Your task to perform on an android device: open wifi settings Image 0: 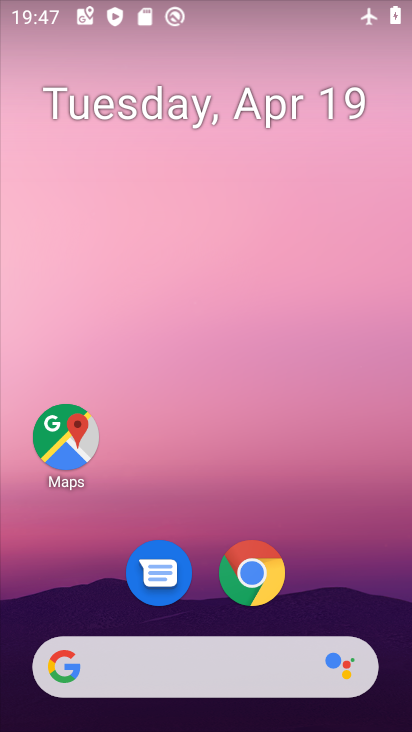
Step 0: click (309, 118)
Your task to perform on an android device: open wifi settings Image 1: 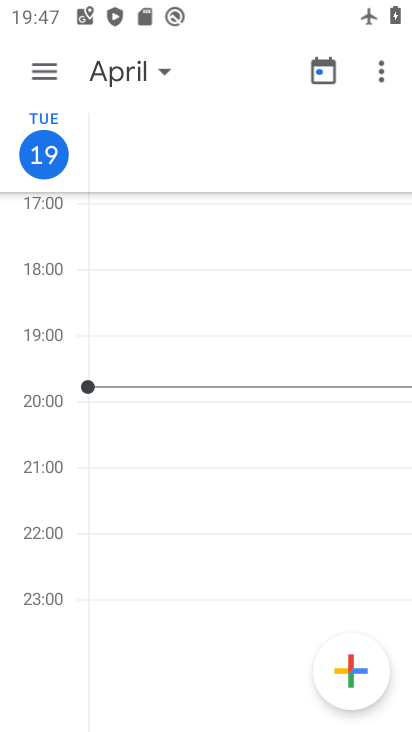
Step 1: press home button
Your task to perform on an android device: open wifi settings Image 2: 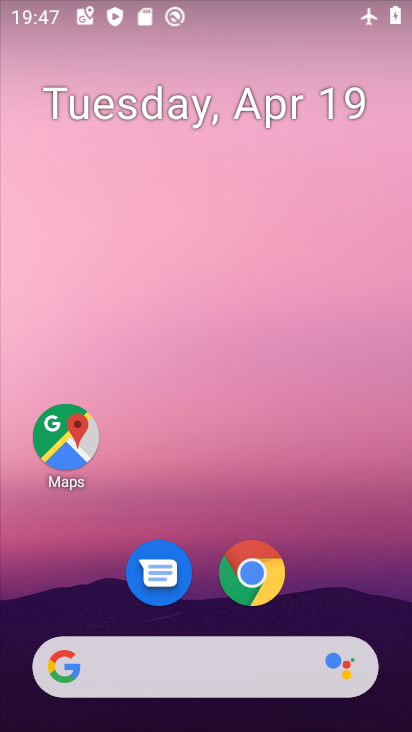
Step 2: drag from (361, 496) to (320, 134)
Your task to perform on an android device: open wifi settings Image 3: 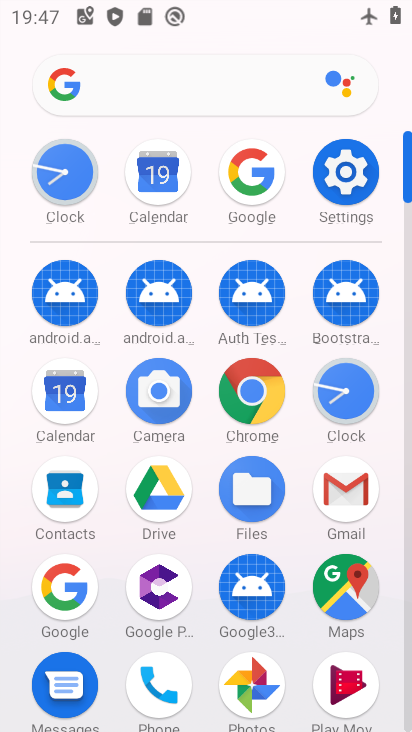
Step 3: click (341, 176)
Your task to perform on an android device: open wifi settings Image 4: 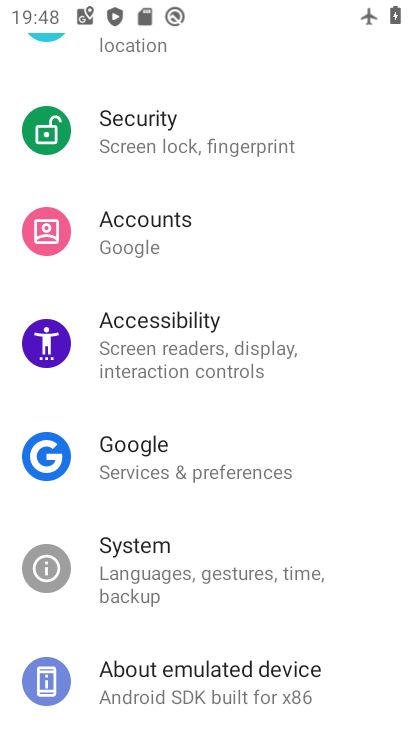
Step 4: drag from (365, 129) to (356, 521)
Your task to perform on an android device: open wifi settings Image 5: 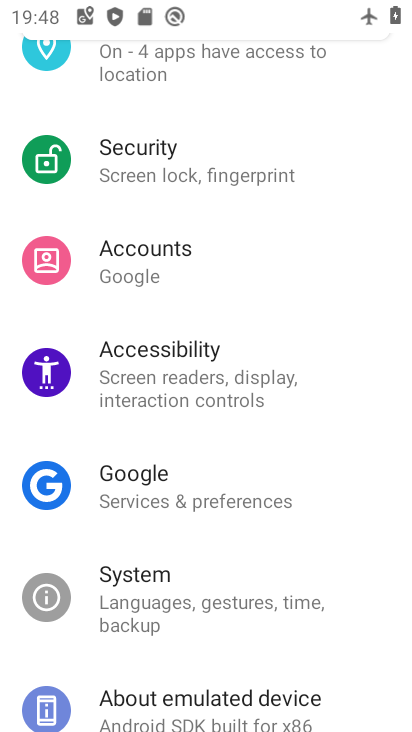
Step 5: click (345, 493)
Your task to perform on an android device: open wifi settings Image 6: 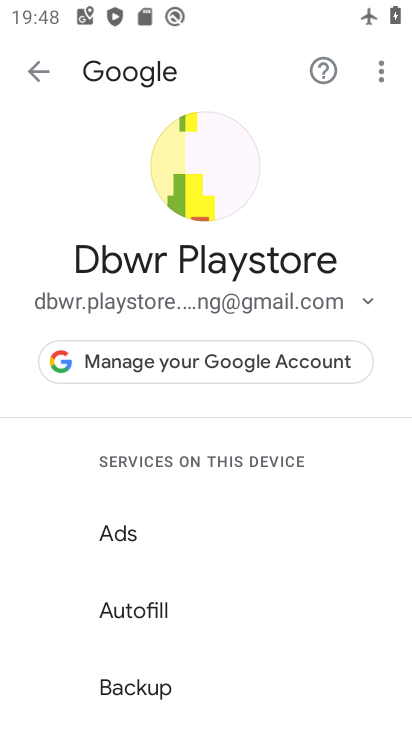
Step 6: press home button
Your task to perform on an android device: open wifi settings Image 7: 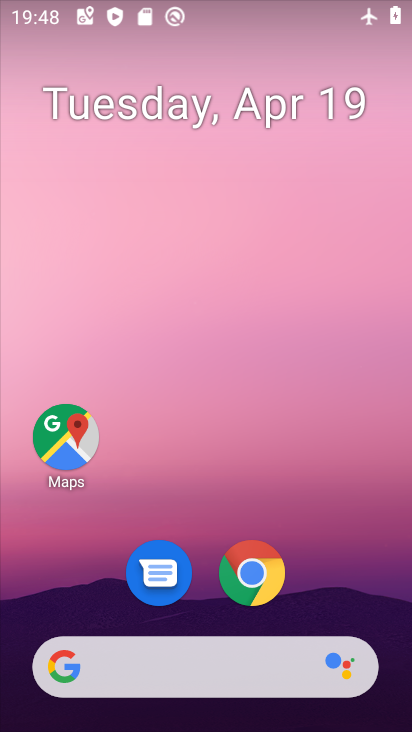
Step 7: drag from (353, 365) to (326, 146)
Your task to perform on an android device: open wifi settings Image 8: 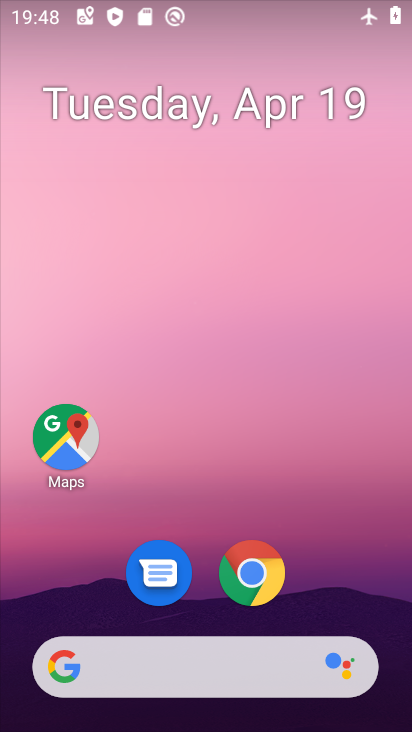
Step 8: drag from (333, 284) to (322, 190)
Your task to perform on an android device: open wifi settings Image 9: 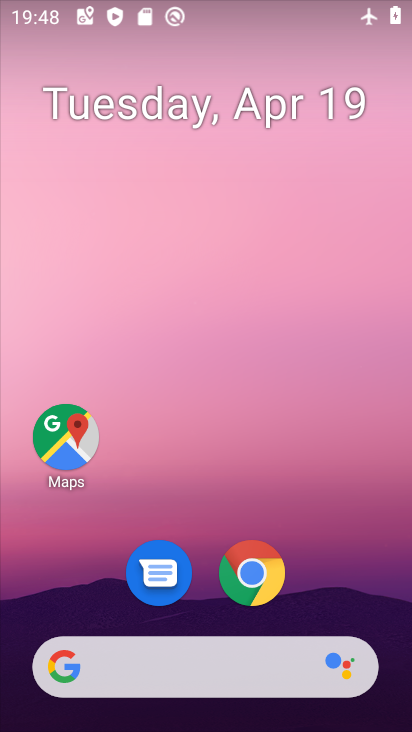
Step 9: drag from (383, 610) to (288, 57)
Your task to perform on an android device: open wifi settings Image 10: 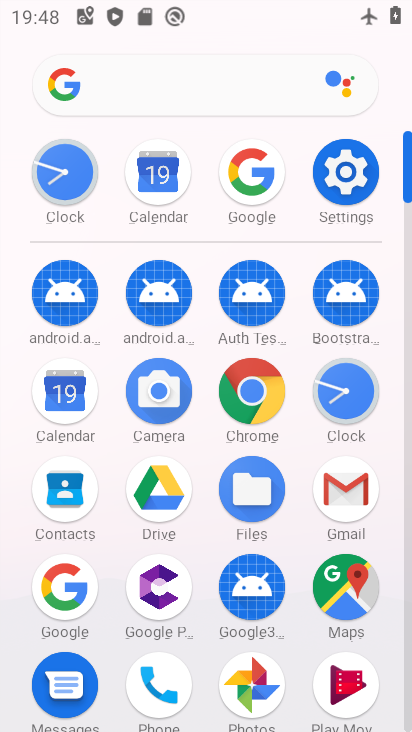
Step 10: click (335, 167)
Your task to perform on an android device: open wifi settings Image 11: 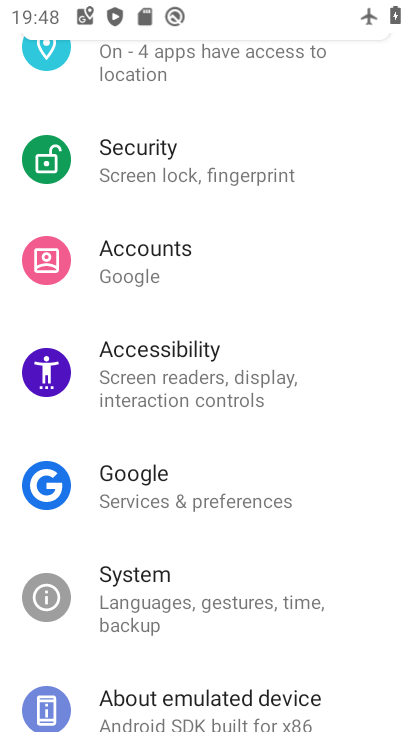
Step 11: drag from (370, 138) to (354, 581)
Your task to perform on an android device: open wifi settings Image 12: 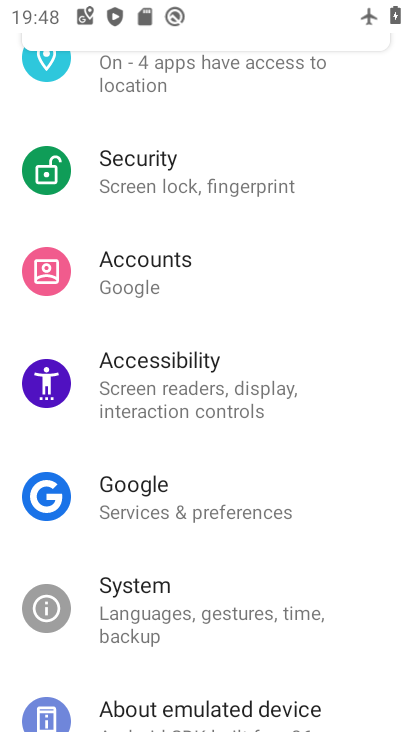
Step 12: drag from (350, 101) to (370, 608)
Your task to perform on an android device: open wifi settings Image 13: 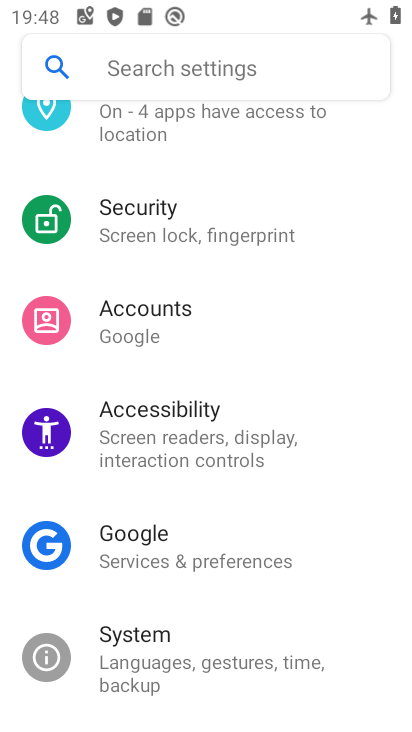
Step 13: drag from (362, 476) to (355, 658)
Your task to perform on an android device: open wifi settings Image 14: 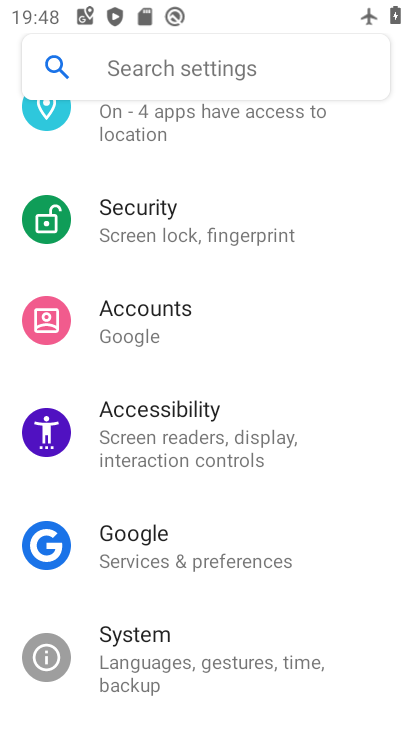
Step 14: drag from (347, 148) to (372, 594)
Your task to perform on an android device: open wifi settings Image 15: 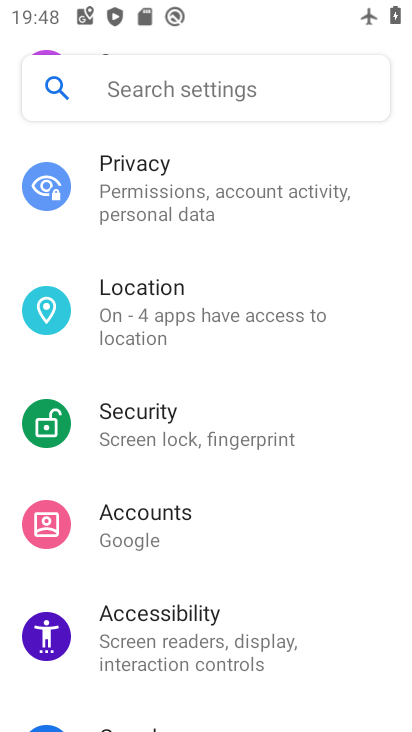
Step 15: drag from (347, 221) to (343, 560)
Your task to perform on an android device: open wifi settings Image 16: 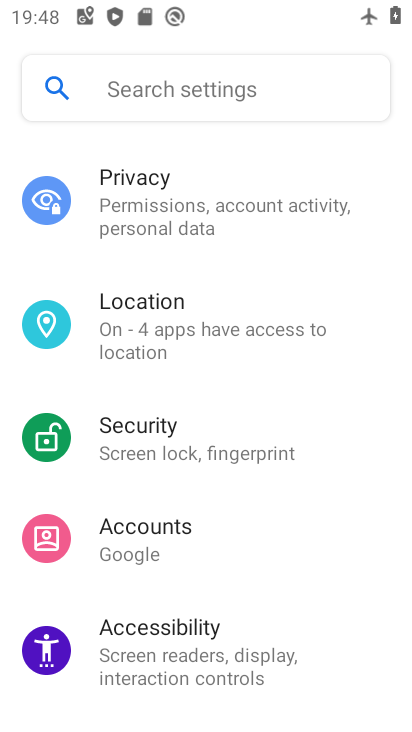
Step 16: drag from (396, 411) to (400, 533)
Your task to perform on an android device: open wifi settings Image 17: 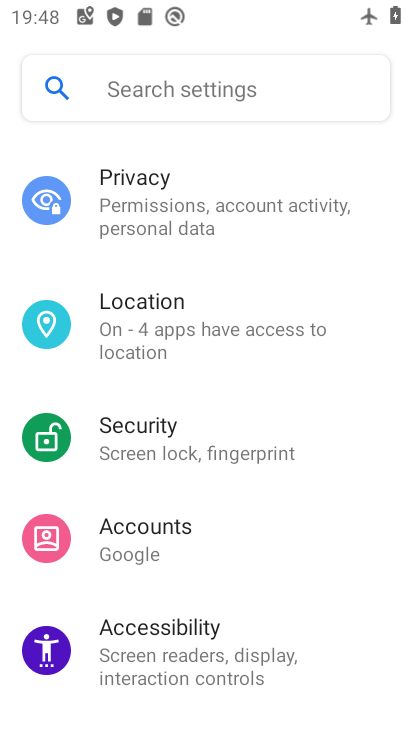
Step 17: drag from (358, 162) to (333, 611)
Your task to perform on an android device: open wifi settings Image 18: 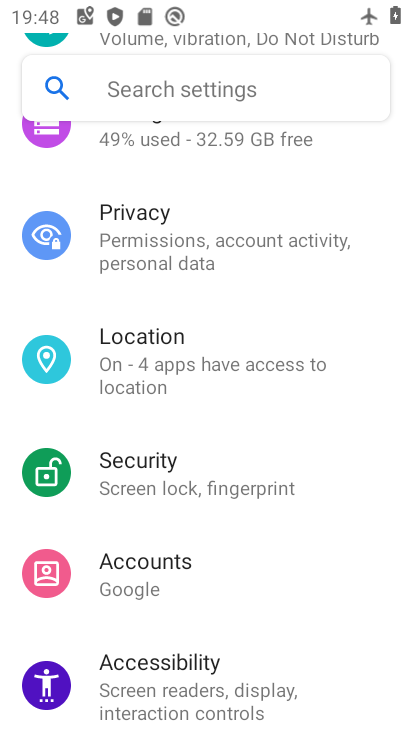
Step 18: drag from (362, 180) to (362, 724)
Your task to perform on an android device: open wifi settings Image 19: 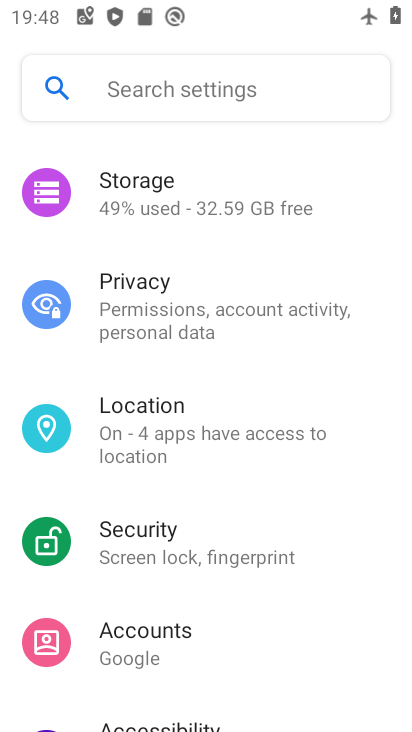
Step 19: drag from (402, 153) to (385, 615)
Your task to perform on an android device: open wifi settings Image 20: 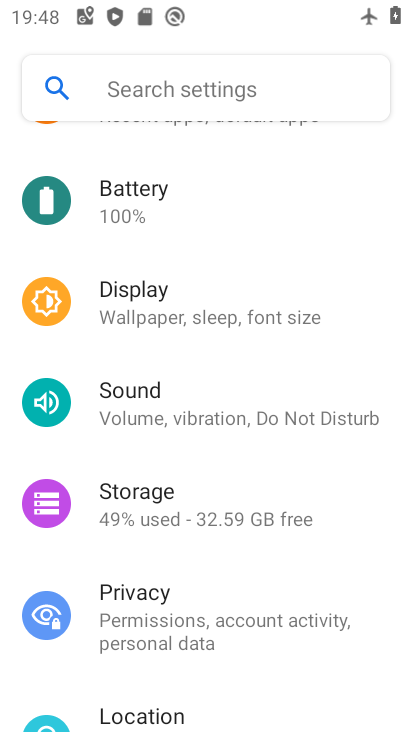
Step 20: drag from (370, 382) to (345, 650)
Your task to perform on an android device: open wifi settings Image 21: 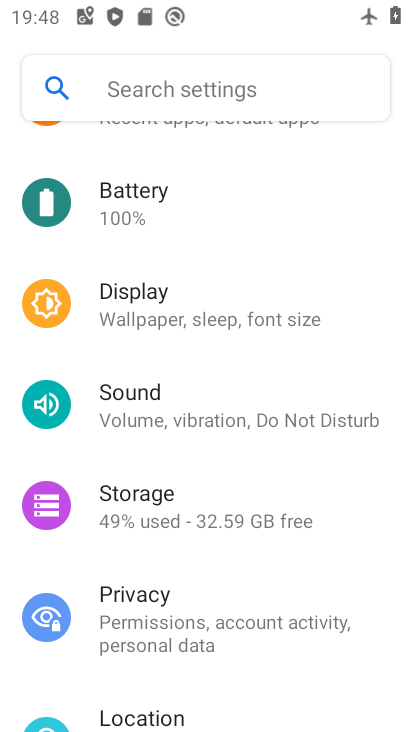
Step 21: drag from (411, 438) to (409, 720)
Your task to perform on an android device: open wifi settings Image 22: 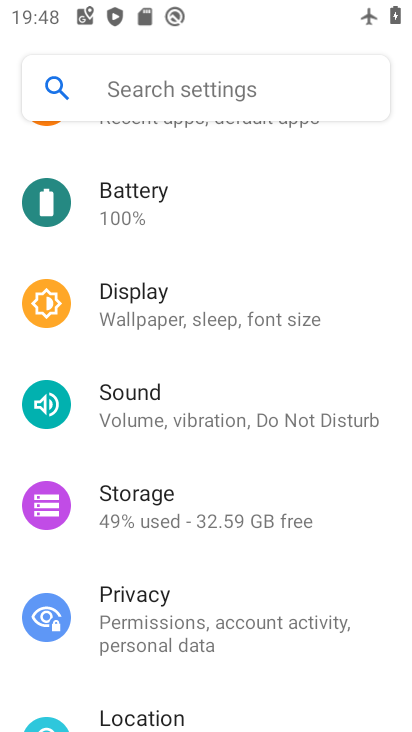
Step 22: drag from (386, 479) to (373, 649)
Your task to perform on an android device: open wifi settings Image 23: 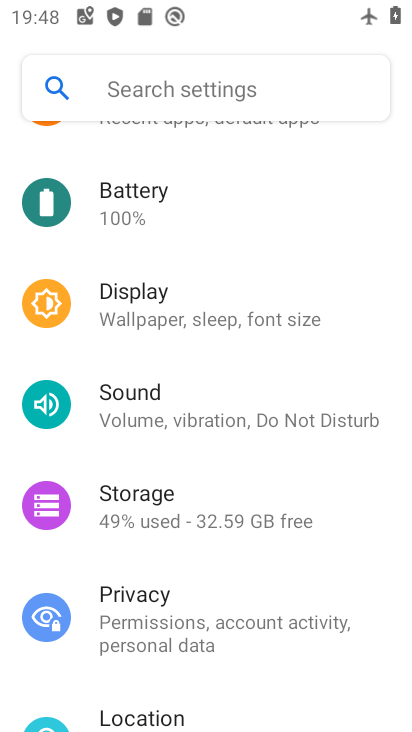
Step 23: drag from (388, 228) to (350, 638)
Your task to perform on an android device: open wifi settings Image 24: 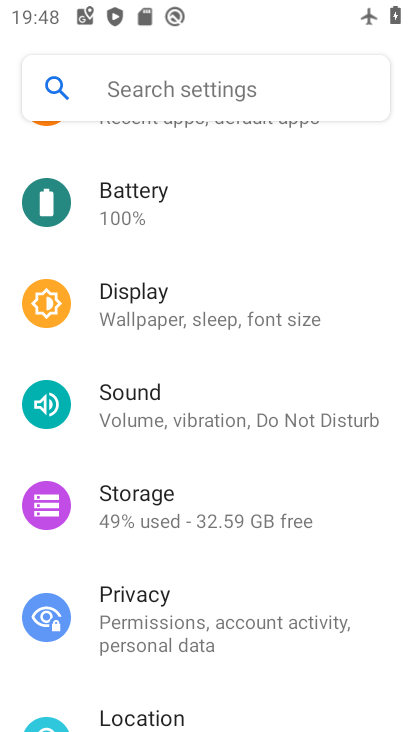
Step 24: drag from (391, 162) to (409, 590)
Your task to perform on an android device: open wifi settings Image 25: 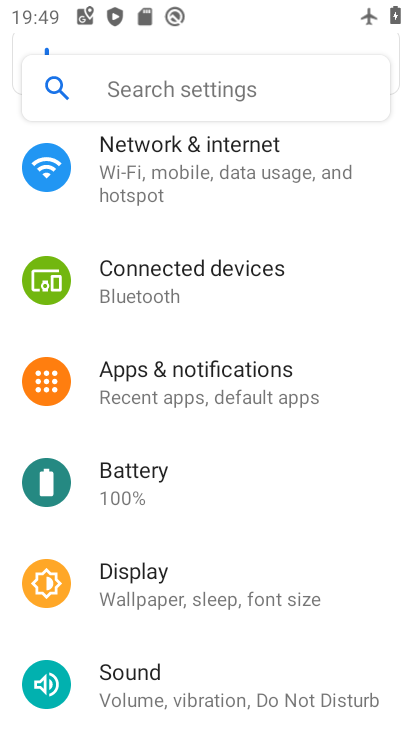
Step 25: drag from (369, 286) to (349, 671)
Your task to perform on an android device: open wifi settings Image 26: 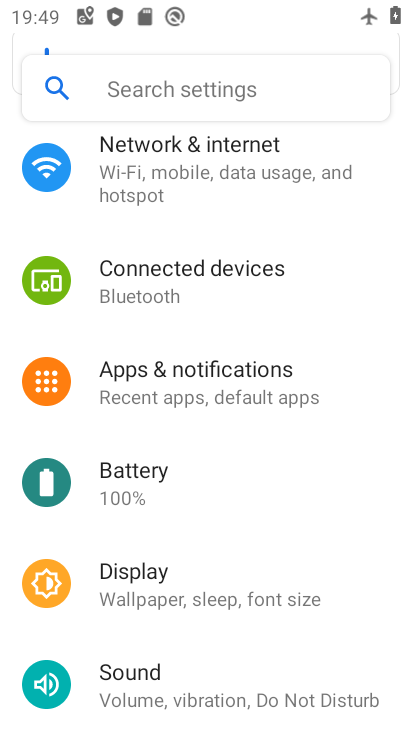
Step 26: click (156, 167)
Your task to perform on an android device: open wifi settings Image 27: 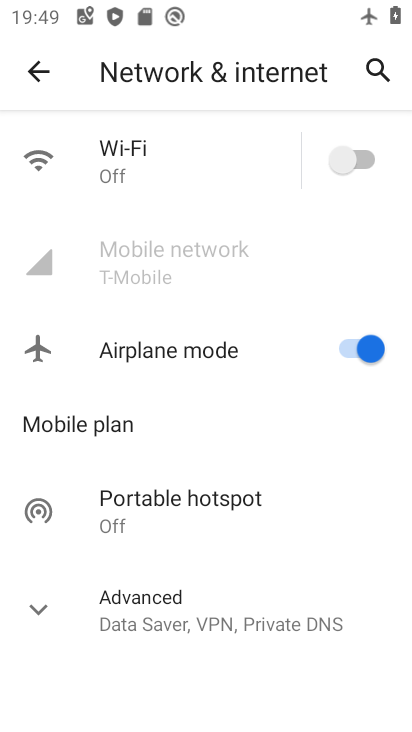
Step 27: click (370, 150)
Your task to perform on an android device: open wifi settings Image 28: 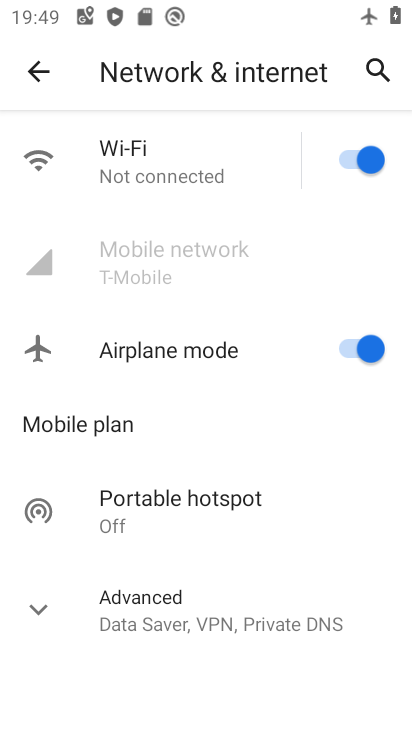
Step 28: task complete